Your task to perform on an android device: Open ESPN.com Image 0: 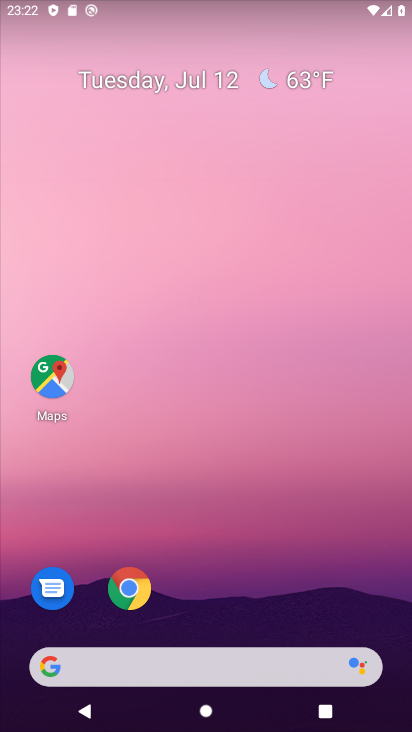
Step 0: drag from (35, 647) to (155, 263)
Your task to perform on an android device: Open ESPN.com Image 1: 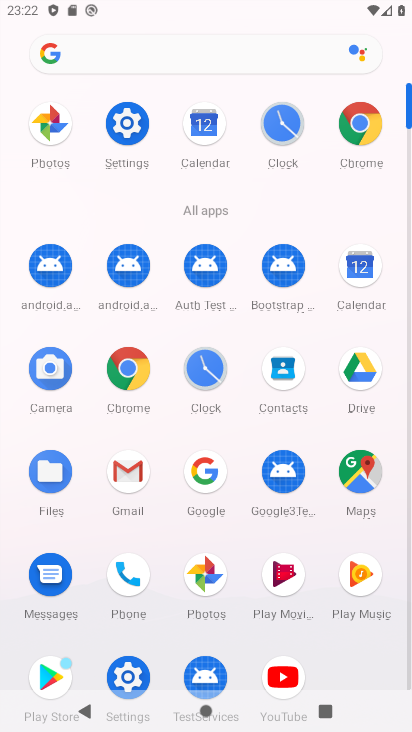
Step 1: click (127, 50)
Your task to perform on an android device: Open ESPN.com Image 2: 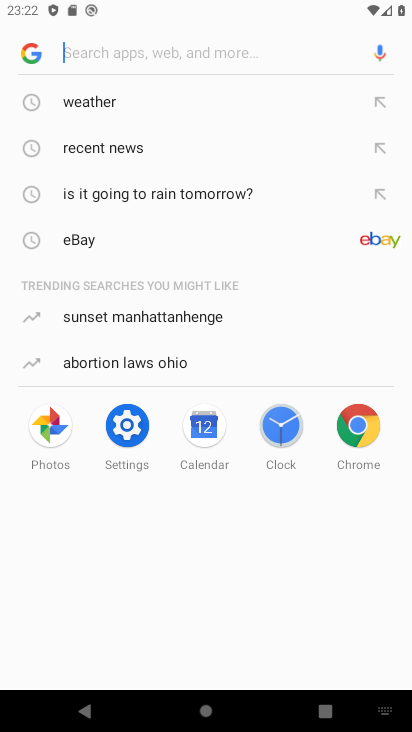
Step 2: type "ESPN.com"
Your task to perform on an android device: Open ESPN.com Image 3: 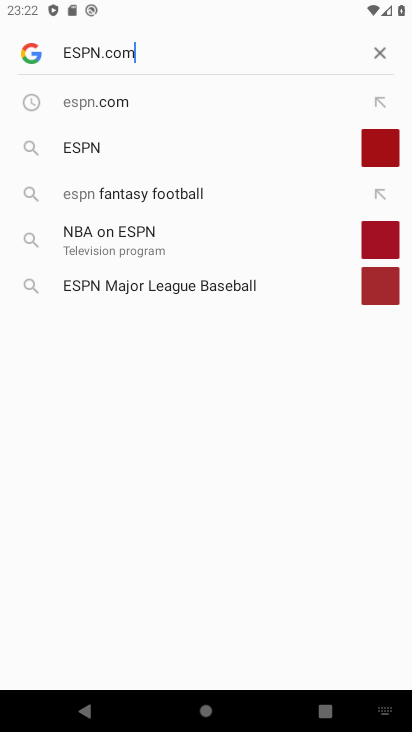
Step 3: type ""
Your task to perform on an android device: Open ESPN.com Image 4: 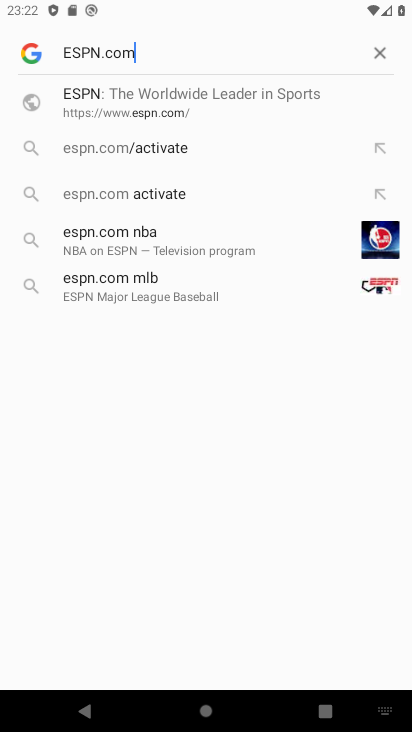
Step 4: click (98, 102)
Your task to perform on an android device: Open ESPN.com Image 5: 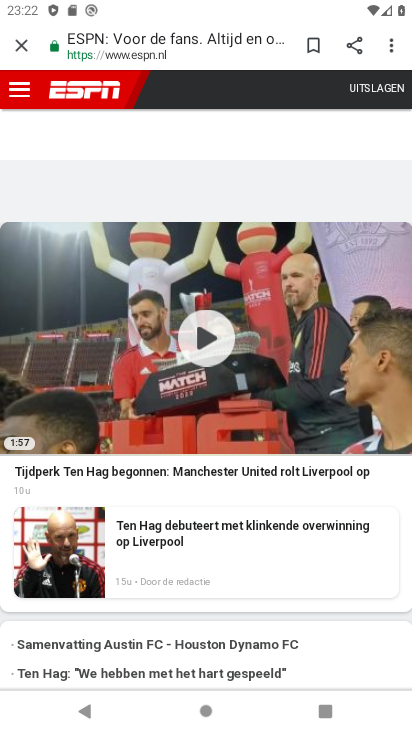
Step 5: task complete